Your task to perform on an android device: change the clock style Image 0: 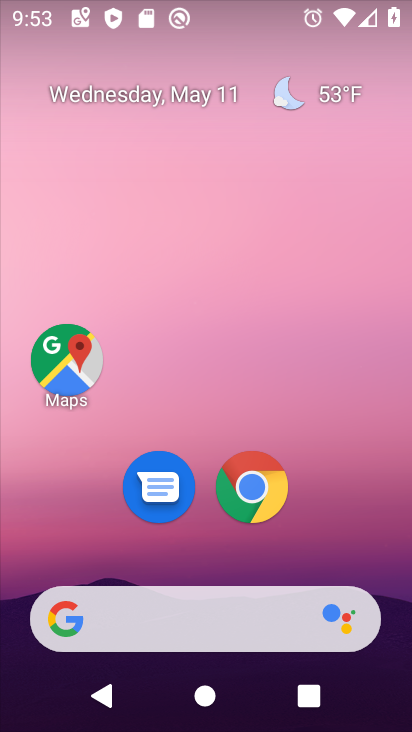
Step 0: drag from (181, 558) to (222, 258)
Your task to perform on an android device: change the clock style Image 1: 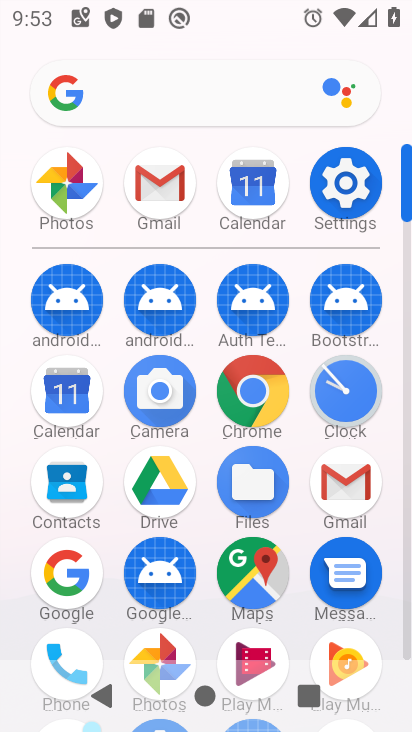
Step 1: click (328, 382)
Your task to perform on an android device: change the clock style Image 2: 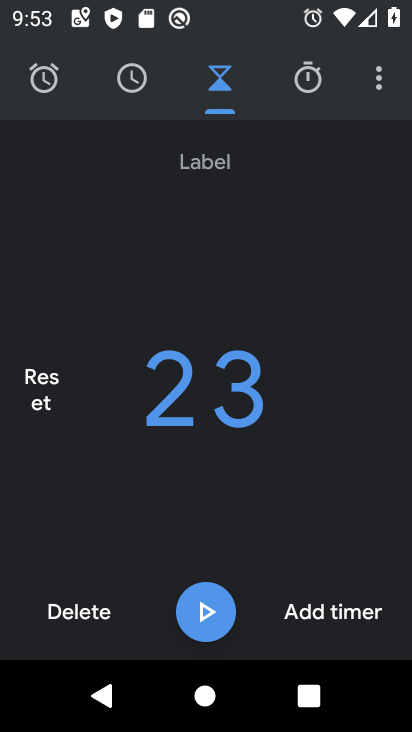
Step 2: click (370, 80)
Your task to perform on an android device: change the clock style Image 3: 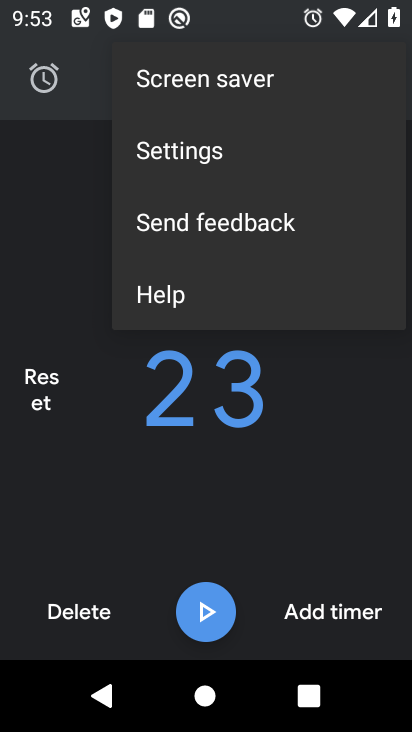
Step 3: click (281, 143)
Your task to perform on an android device: change the clock style Image 4: 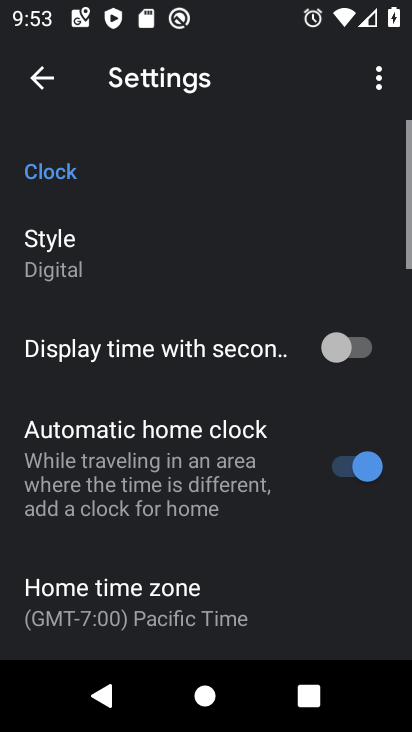
Step 4: click (98, 242)
Your task to perform on an android device: change the clock style Image 5: 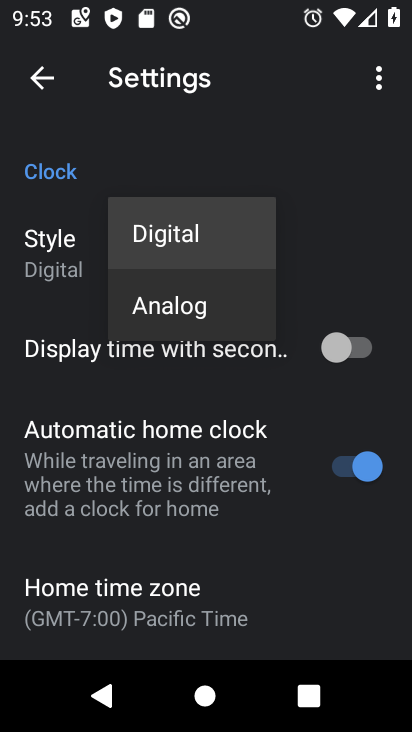
Step 5: click (163, 286)
Your task to perform on an android device: change the clock style Image 6: 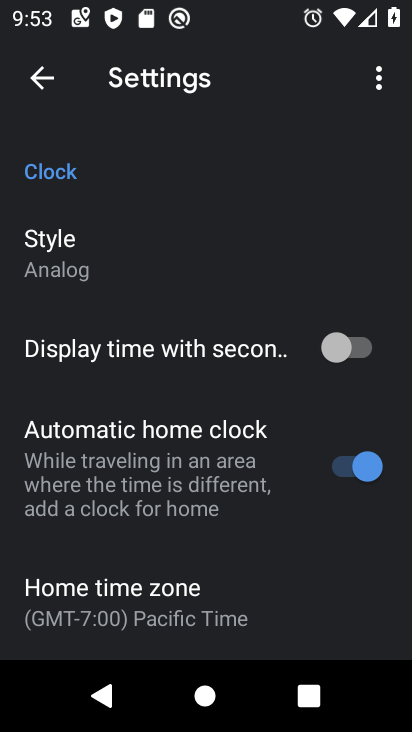
Step 6: task complete